Your task to perform on an android device: add a contact Image 0: 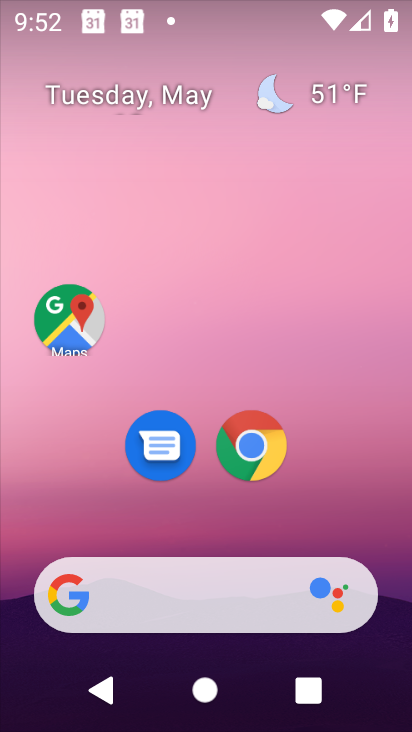
Step 0: drag from (180, 562) to (165, 48)
Your task to perform on an android device: add a contact Image 1: 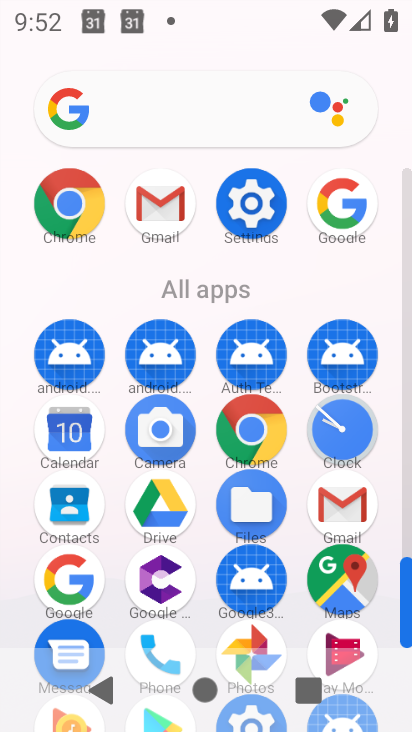
Step 1: drag from (198, 586) to (194, 213)
Your task to perform on an android device: add a contact Image 2: 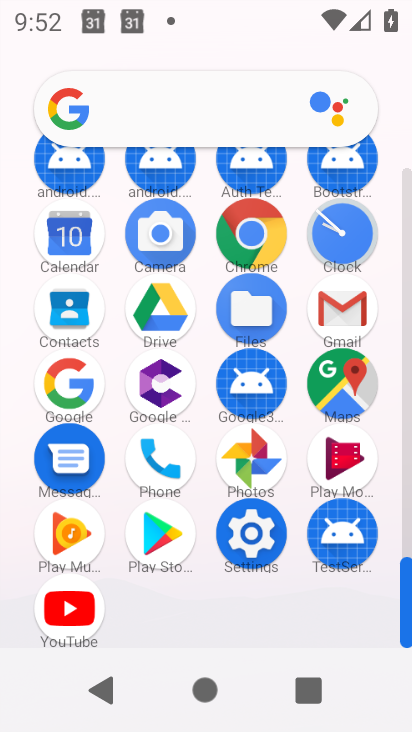
Step 2: click (52, 321)
Your task to perform on an android device: add a contact Image 3: 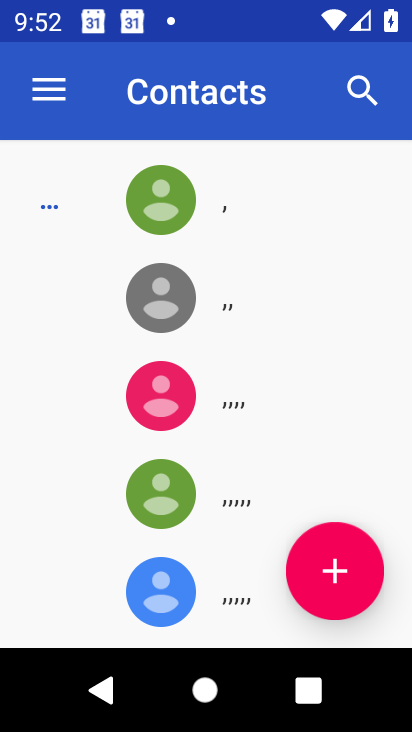
Step 3: click (344, 553)
Your task to perform on an android device: add a contact Image 4: 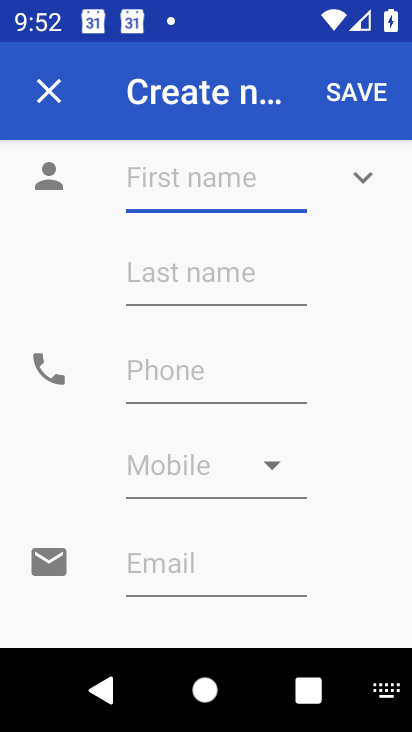
Step 4: type "ghdfgv"
Your task to perform on an android device: add a contact Image 5: 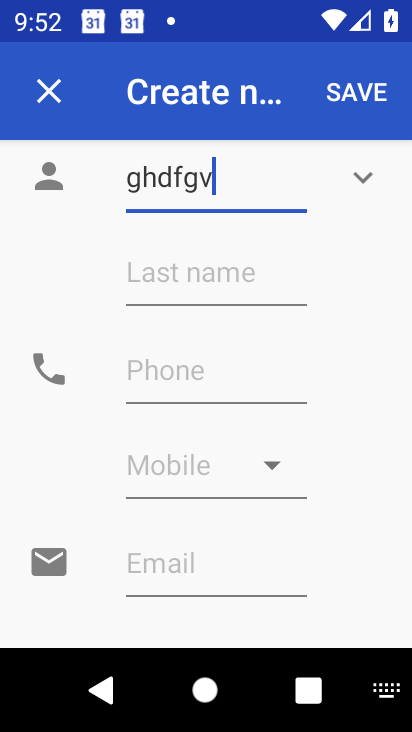
Step 5: click (224, 375)
Your task to perform on an android device: add a contact Image 6: 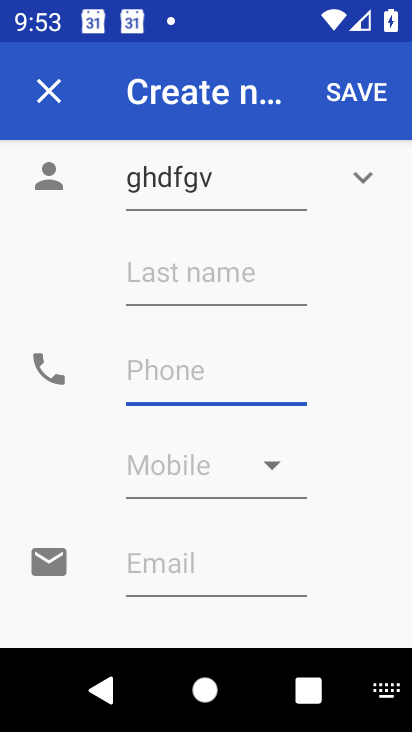
Step 6: type "9897766"
Your task to perform on an android device: add a contact Image 7: 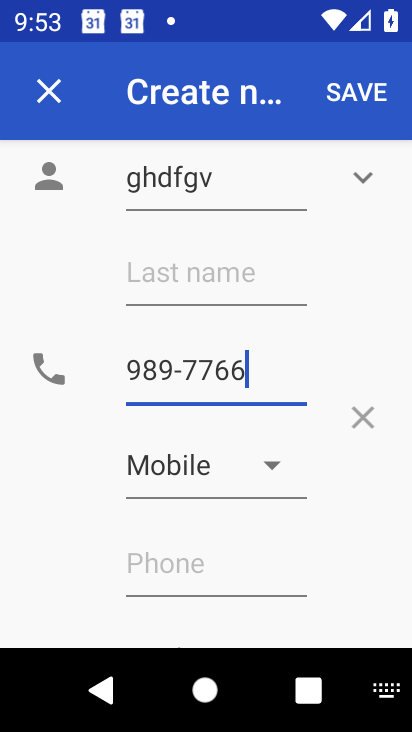
Step 7: task complete